Your task to perform on an android device: Open the phone app and click the voicemail tab. Image 0: 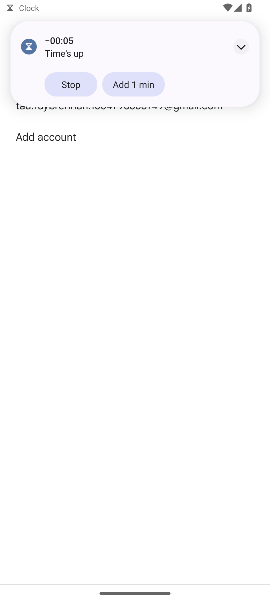
Step 0: press home button
Your task to perform on an android device: Open the phone app and click the voicemail tab. Image 1: 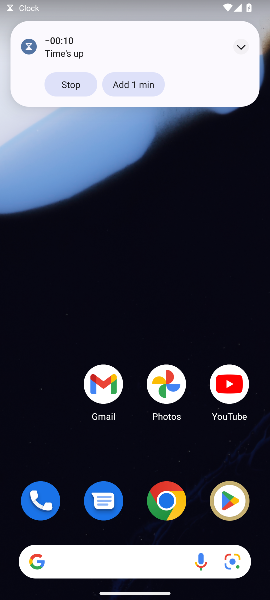
Step 1: click (65, 81)
Your task to perform on an android device: Open the phone app and click the voicemail tab. Image 2: 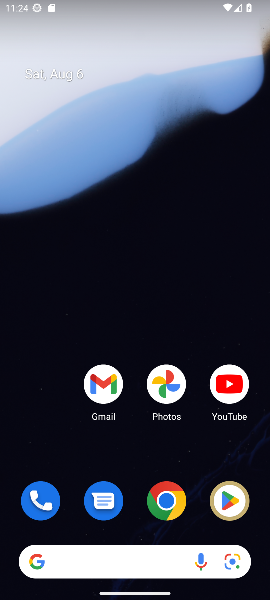
Step 2: drag from (131, 528) to (87, 6)
Your task to perform on an android device: Open the phone app and click the voicemail tab. Image 3: 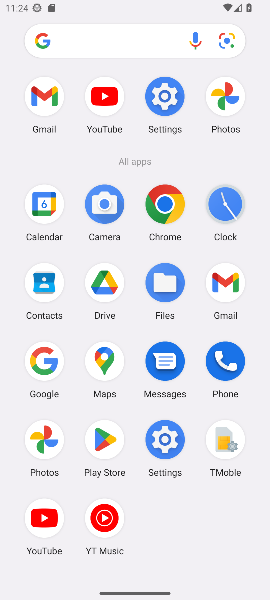
Step 3: drag from (224, 399) to (257, 391)
Your task to perform on an android device: Open the phone app and click the voicemail tab. Image 4: 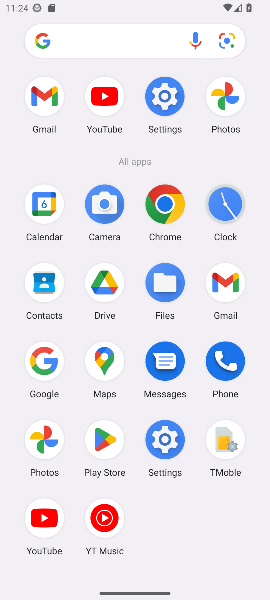
Step 4: drag from (140, 386) to (31, 400)
Your task to perform on an android device: Open the phone app and click the voicemail tab. Image 5: 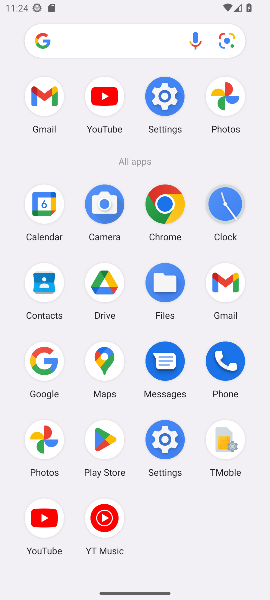
Step 5: drag from (143, 419) to (195, 170)
Your task to perform on an android device: Open the phone app and click the voicemail tab. Image 6: 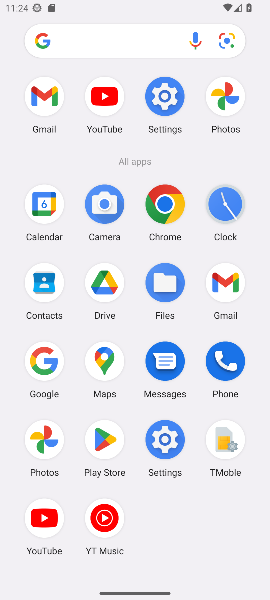
Step 6: drag from (166, 173) to (244, 594)
Your task to perform on an android device: Open the phone app and click the voicemail tab. Image 7: 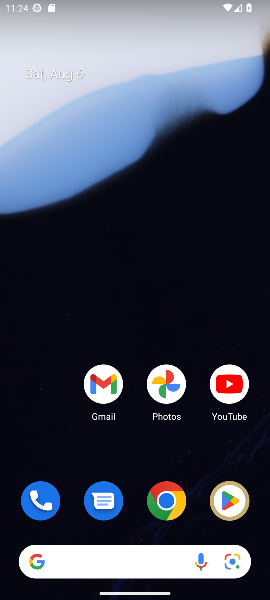
Step 7: drag from (191, 414) to (227, 23)
Your task to perform on an android device: Open the phone app and click the voicemail tab. Image 8: 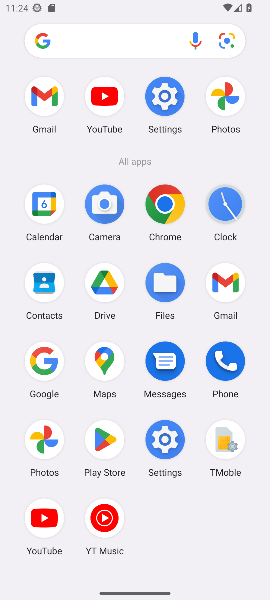
Step 8: click (217, 352)
Your task to perform on an android device: Open the phone app and click the voicemail tab. Image 9: 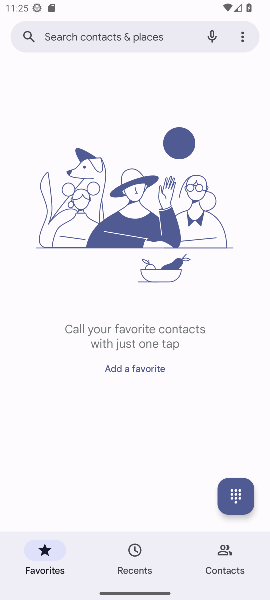
Step 9: press back button
Your task to perform on an android device: Open the phone app and click the voicemail tab. Image 10: 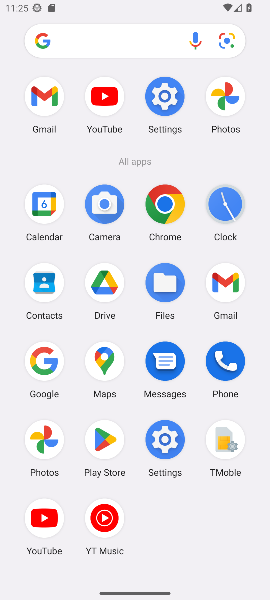
Step 10: click (234, 361)
Your task to perform on an android device: Open the phone app and click the voicemail tab. Image 11: 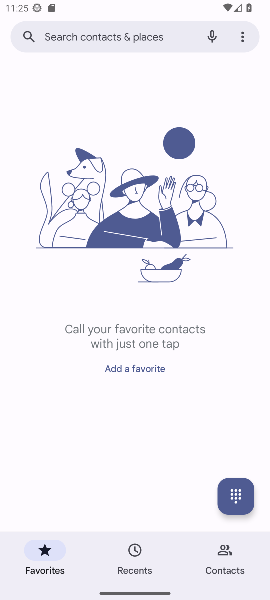
Step 11: task complete